Your task to perform on an android device: toggle notification dots Image 0: 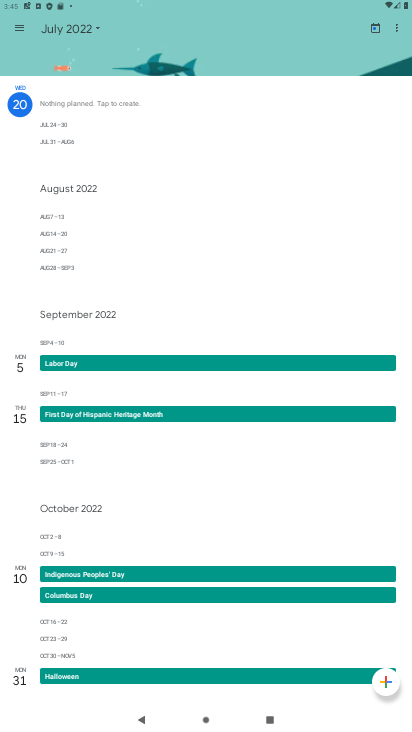
Step 0: press home button
Your task to perform on an android device: toggle notification dots Image 1: 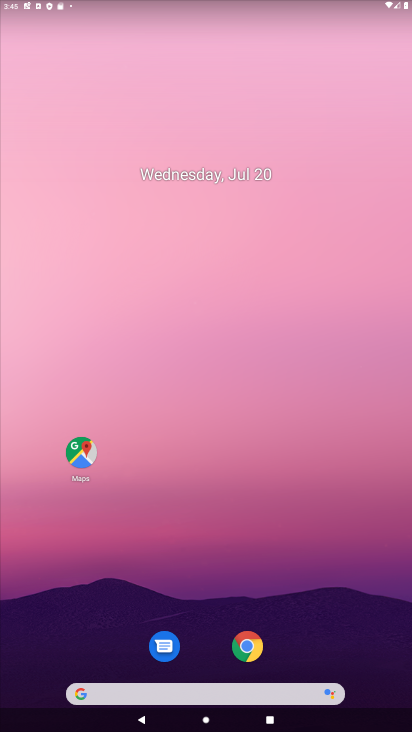
Step 1: drag from (202, 631) to (208, 175)
Your task to perform on an android device: toggle notification dots Image 2: 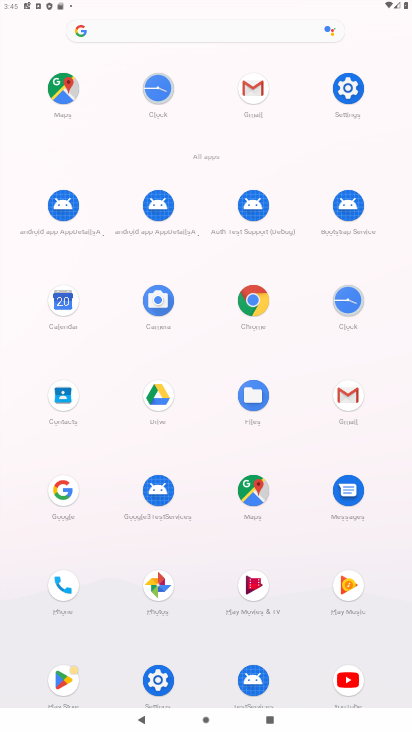
Step 2: click (346, 85)
Your task to perform on an android device: toggle notification dots Image 3: 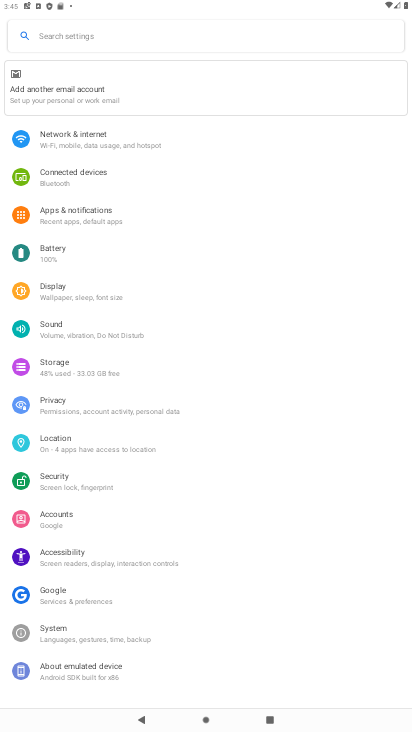
Step 3: click (113, 215)
Your task to perform on an android device: toggle notification dots Image 4: 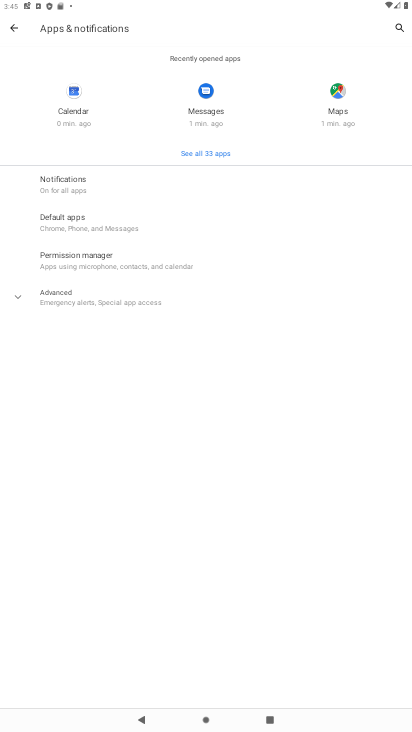
Step 4: click (152, 193)
Your task to perform on an android device: toggle notification dots Image 5: 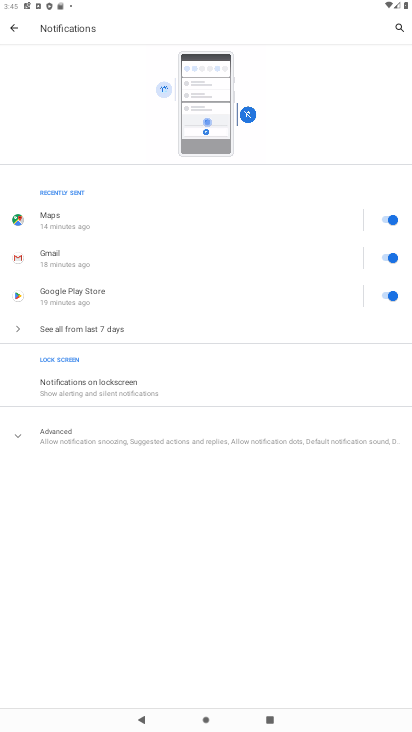
Step 5: click (150, 434)
Your task to perform on an android device: toggle notification dots Image 6: 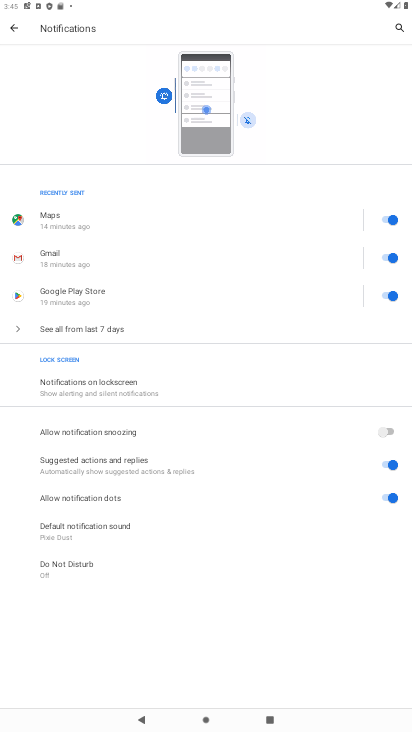
Step 6: click (385, 501)
Your task to perform on an android device: toggle notification dots Image 7: 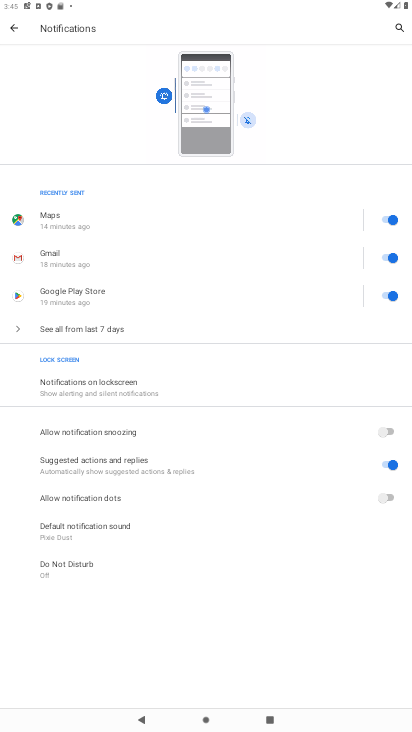
Step 7: task complete